Your task to perform on an android device: Toggle the flashlight Image 0: 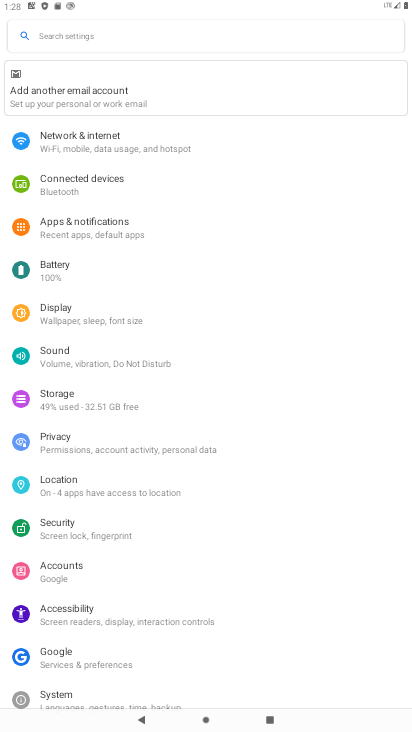
Step 0: press home button
Your task to perform on an android device: Toggle the flashlight Image 1: 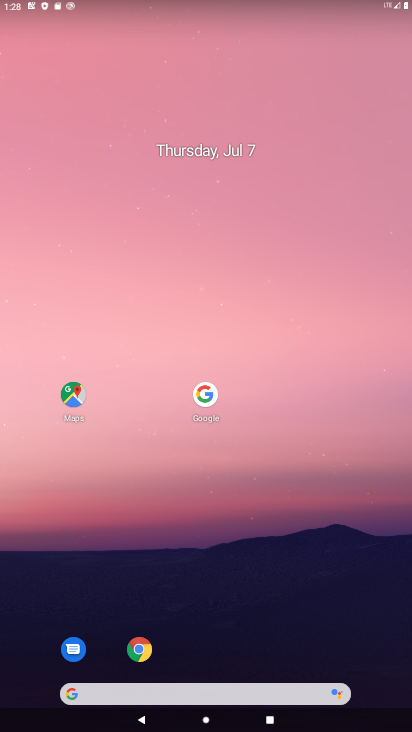
Step 1: task complete